Your task to perform on an android device: set the timer Image 0: 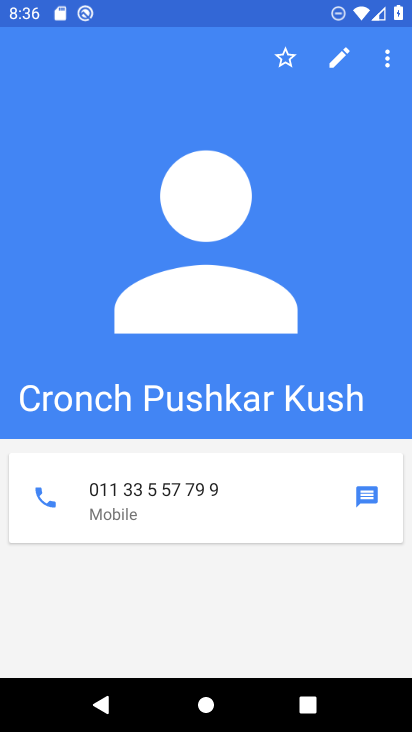
Step 0: press home button
Your task to perform on an android device: set the timer Image 1: 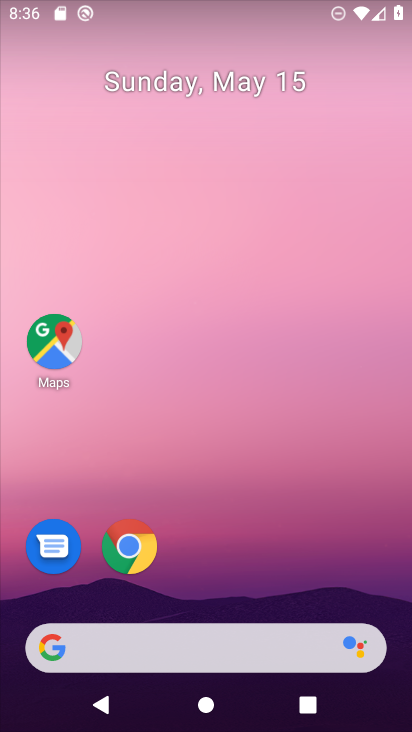
Step 1: drag from (228, 504) to (202, 69)
Your task to perform on an android device: set the timer Image 2: 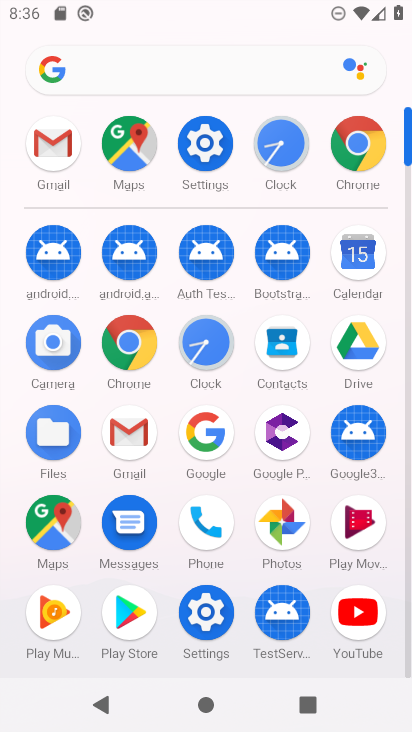
Step 2: click (282, 141)
Your task to perform on an android device: set the timer Image 3: 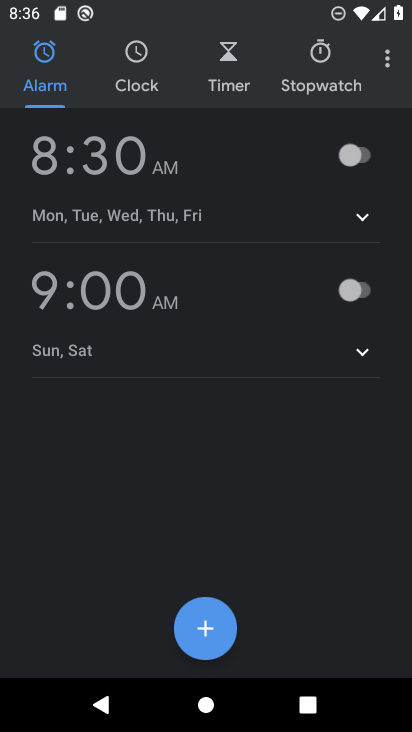
Step 3: click (228, 58)
Your task to perform on an android device: set the timer Image 4: 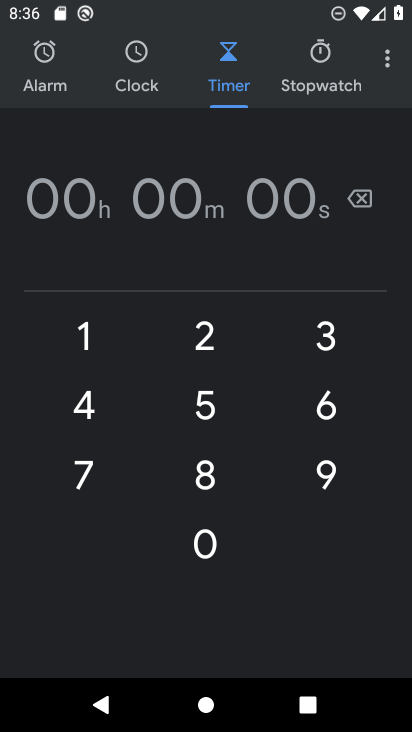
Step 4: click (78, 335)
Your task to perform on an android device: set the timer Image 5: 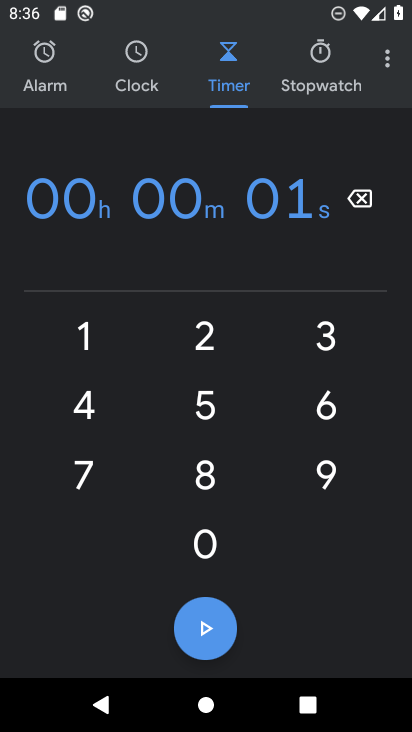
Step 5: click (201, 329)
Your task to perform on an android device: set the timer Image 6: 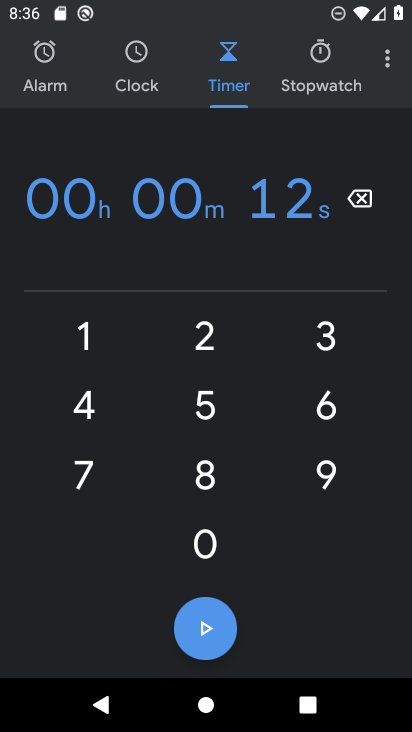
Step 6: task complete